Your task to perform on an android device: Open Google Chrome and open the bookmarks view Image 0: 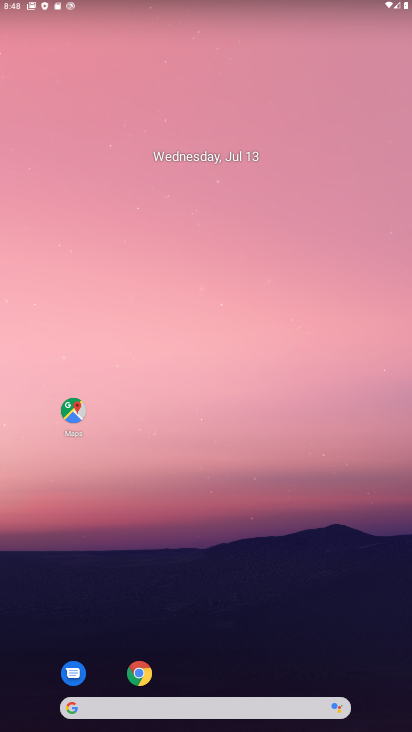
Step 0: click (143, 675)
Your task to perform on an android device: Open Google Chrome and open the bookmarks view Image 1: 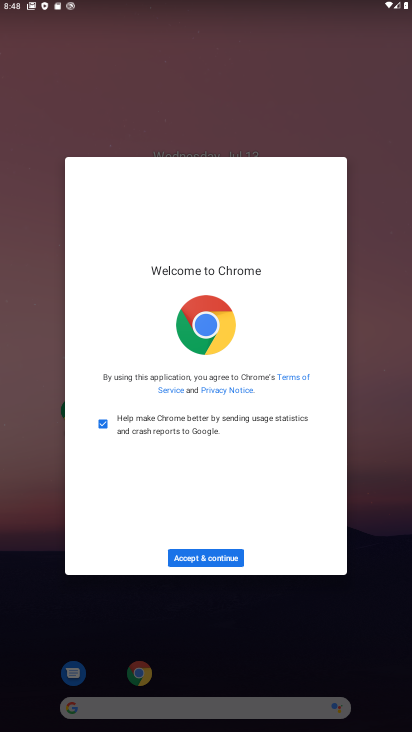
Step 1: click (219, 552)
Your task to perform on an android device: Open Google Chrome and open the bookmarks view Image 2: 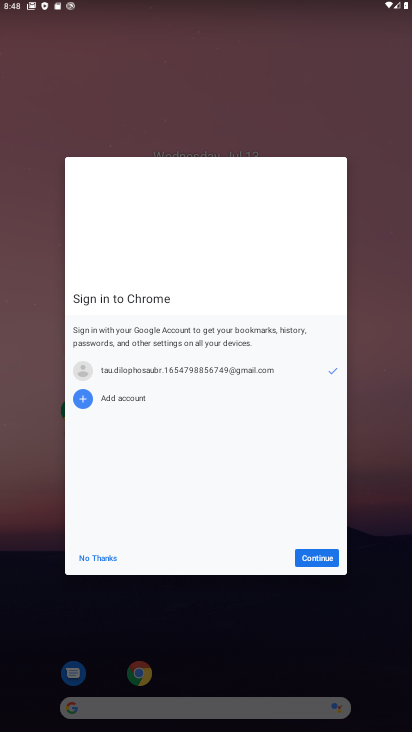
Step 2: click (320, 554)
Your task to perform on an android device: Open Google Chrome and open the bookmarks view Image 3: 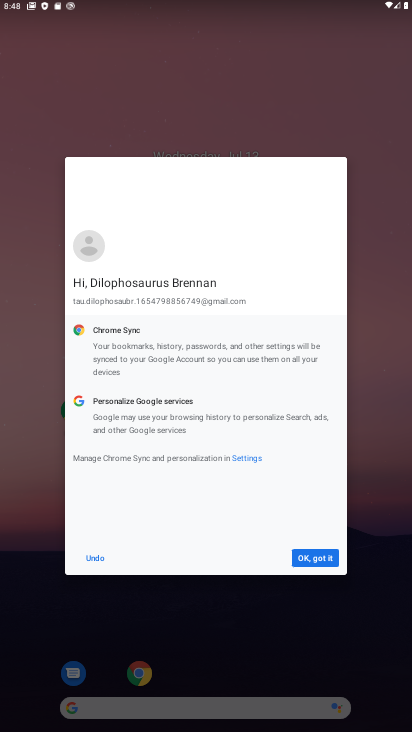
Step 3: click (317, 554)
Your task to perform on an android device: Open Google Chrome and open the bookmarks view Image 4: 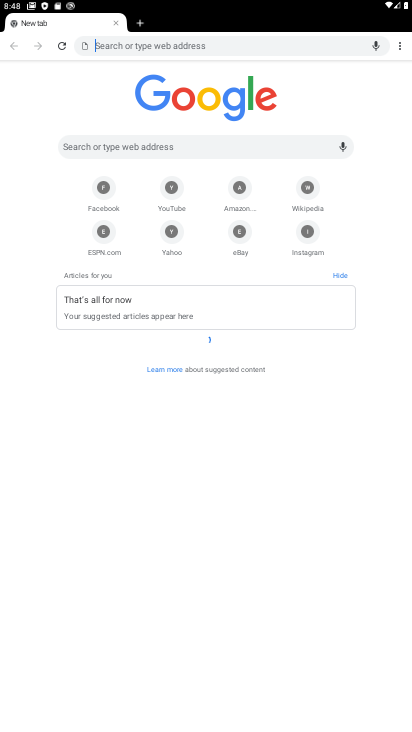
Step 4: click (402, 47)
Your task to perform on an android device: Open Google Chrome and open the bookmarks view Image 5: 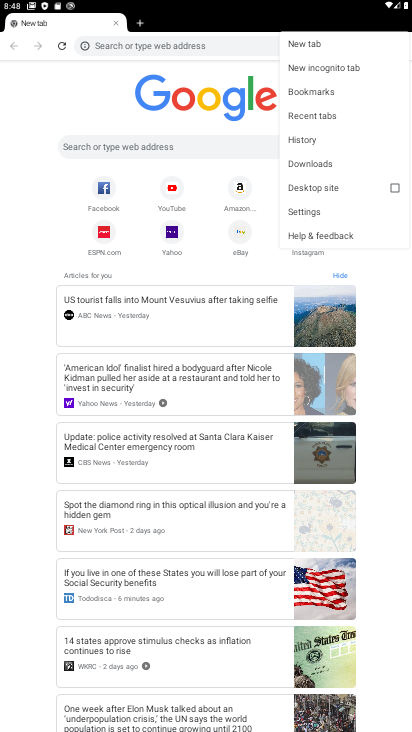
Step 5: click (315, 93)
Your task to perform on an android device: Open Google Chrome and open the bookmarks view Image 6: 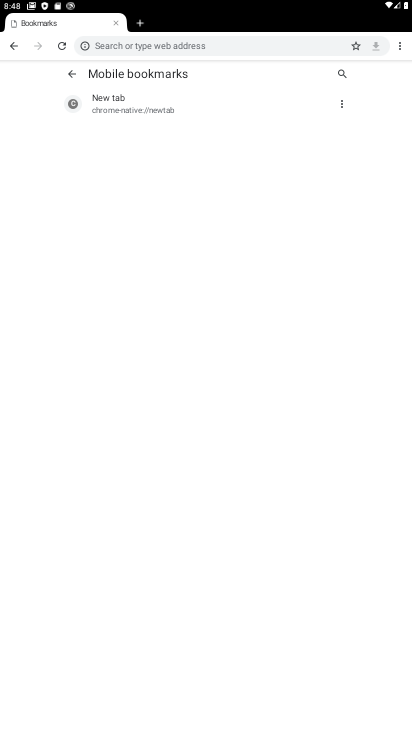
Step 6: click (340, 104)
Your task to perform on an android device: Open Google Chrome and open the bookmarks view Image 7: 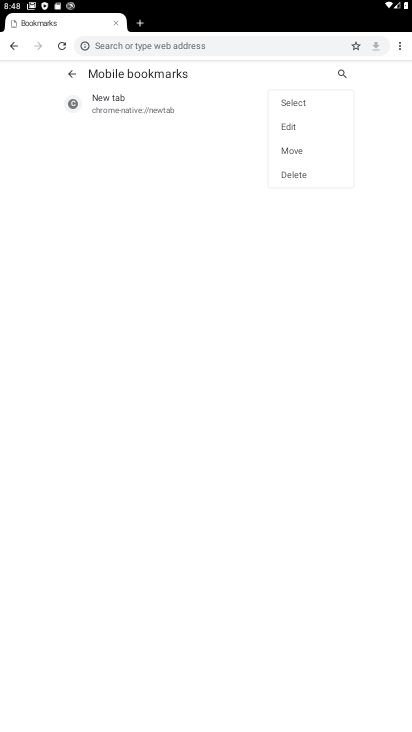
Step 7: click (299, 126)
Your task to perform on an android device: Open Google Chrome and open the bookmarks view Image 8: 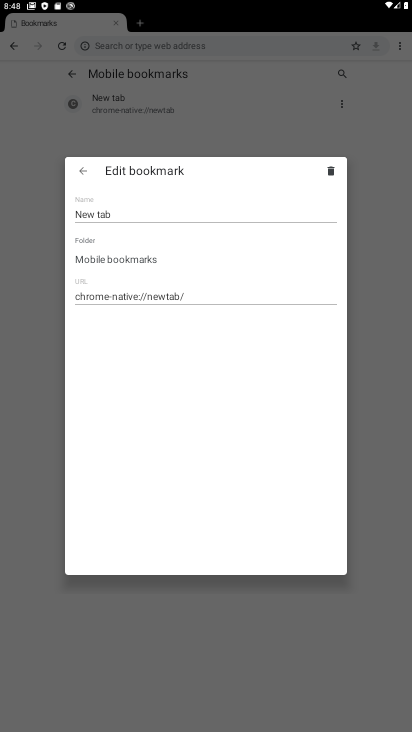
Step 8: task complete